Your task to perform on an android device: Search for razer blade on newegg, select the first entry, add it to the cart, then select checkout. Image 0: 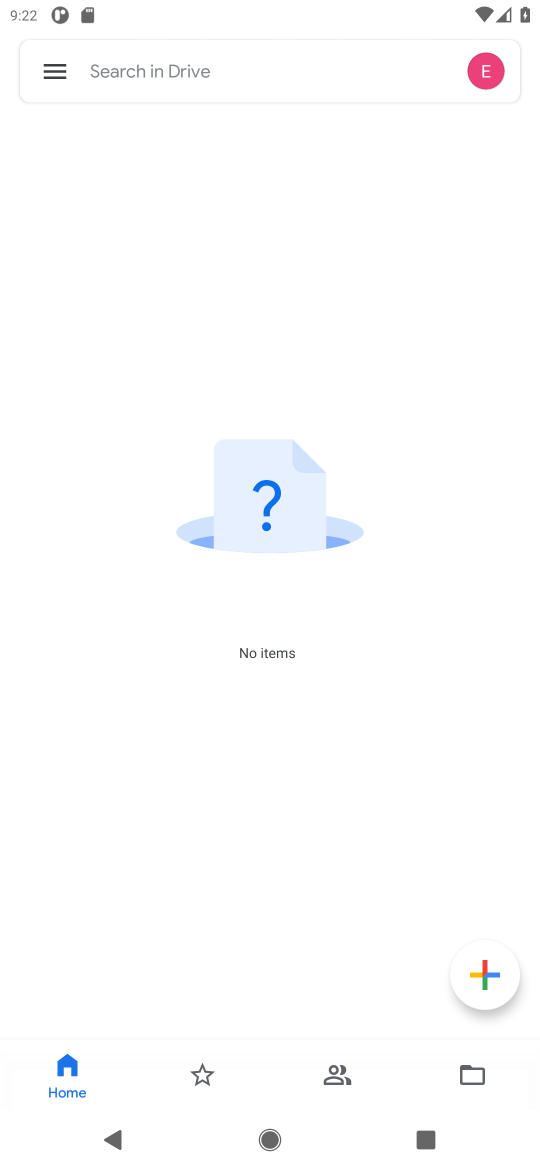
Step 0: press home button
Your task to perform on an android device: Search for razer blade on newegg, select the first entry, add it to the cart, then select checkout. Image 1: 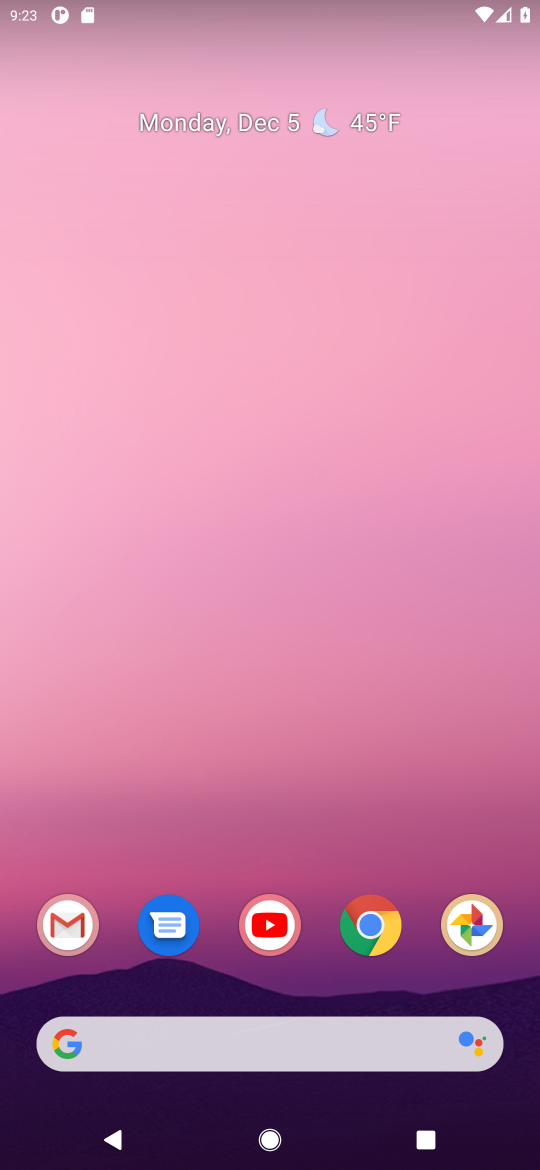
Step 1: click (373, 936)
Your task to perform on an android device: Search for razer blade on newegg, select the first entry, add it to the cart, then select checkout. Image 2: 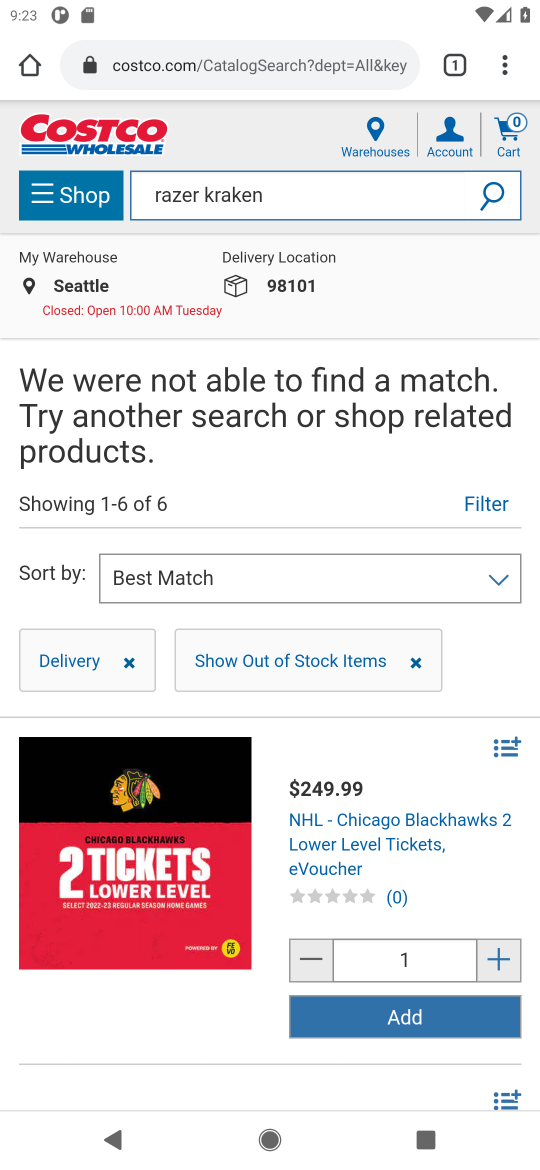
Step 2: click (211, 59)
Your task to perform on an android device: Search for razer blade on newegg, select the first entry, add it to the cart, then select checkout. Image 3: 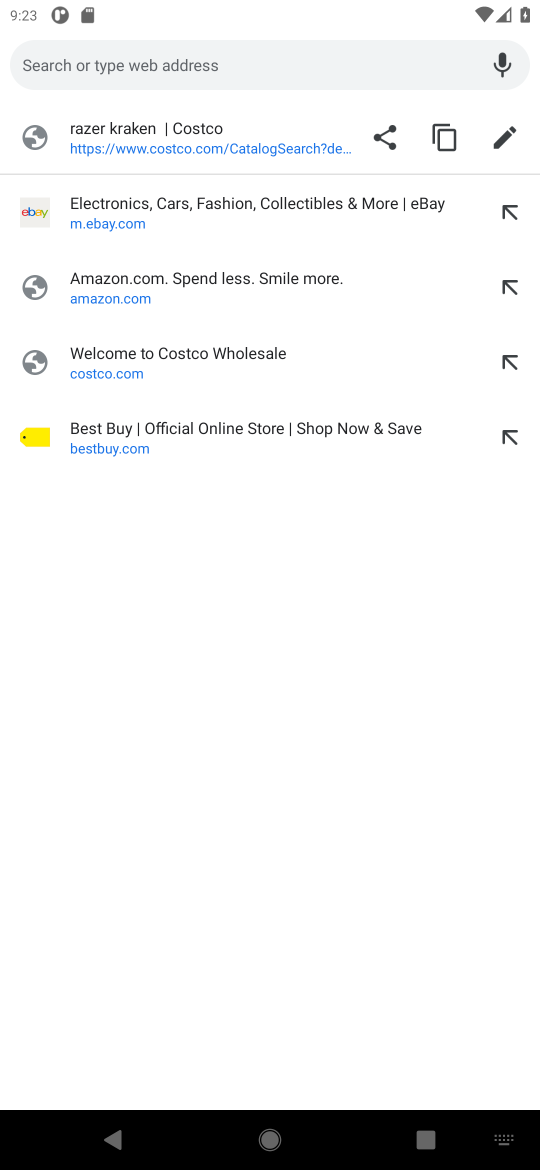
Step 3: type "newegg.com"
Your task to perform on an android device: Search for razer blade on newegg, select the first entry, add it to the cart, then select checkout. Image 4: 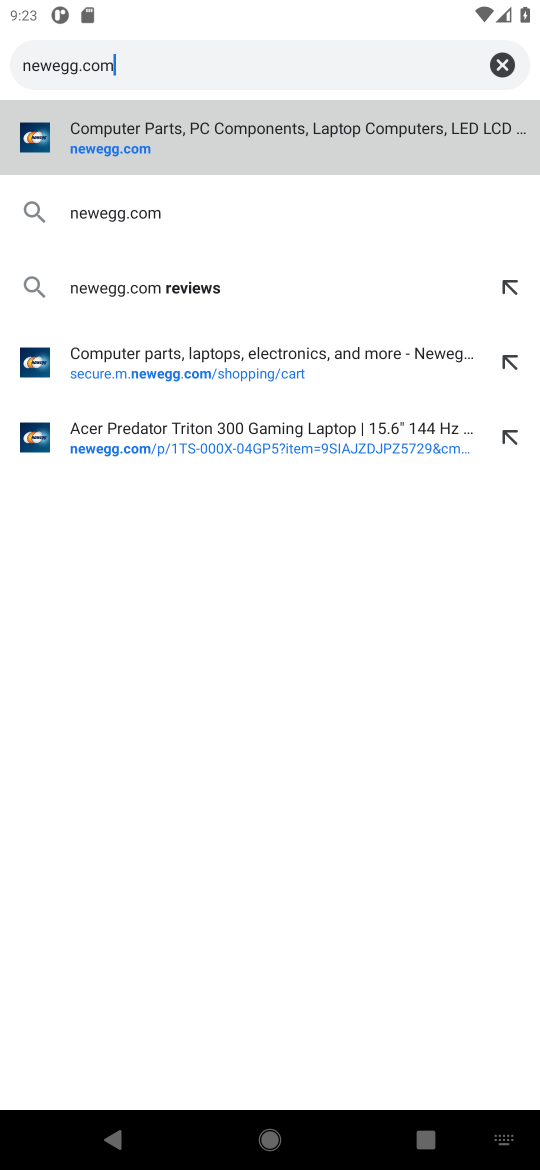
Step 4: click (78, 152)
Your task to perform on an android device: Search for razer blade on newegg, select the first entry, add it to the cart, then select checkout. Image 5: 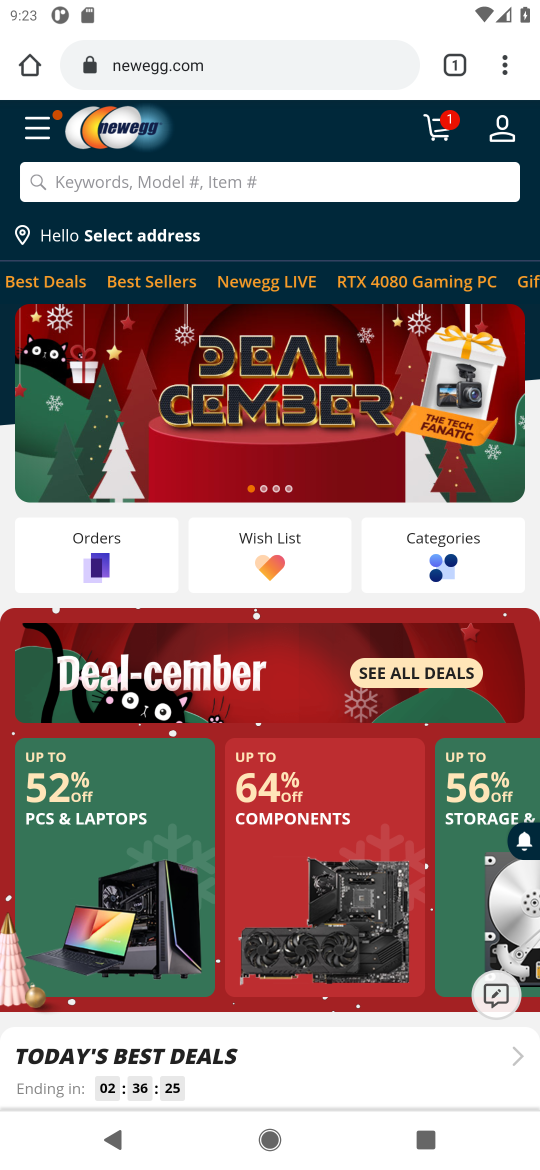
Step 5: click (143, 178)
Your task to perform on an android device: Search for razer blade on newegg, select the first entry, add it to the cart, then select checkout. Image 6: 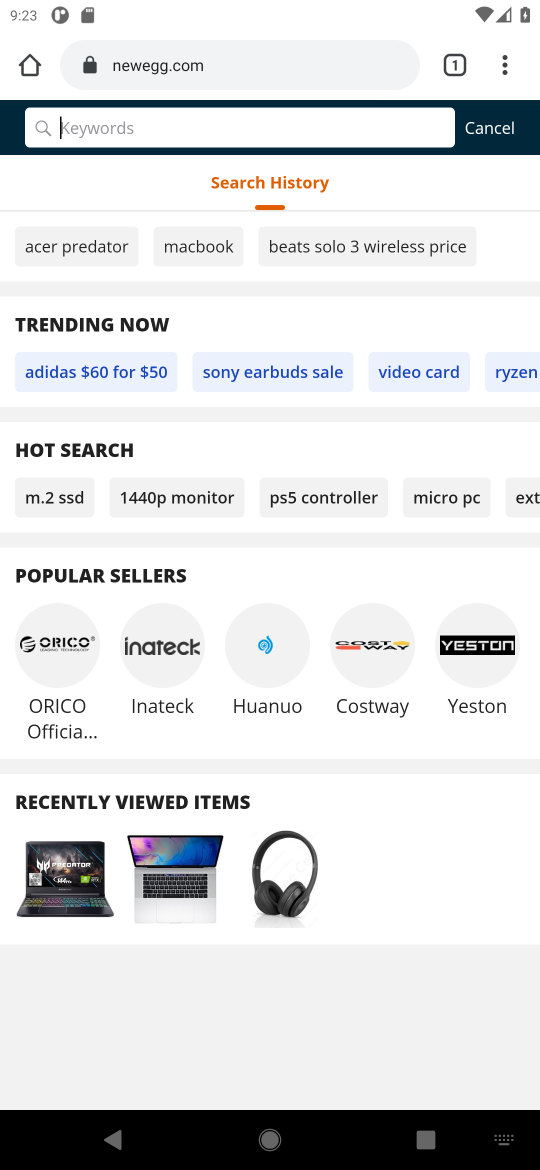
Step 6: type "razer blade"
Your task to perform on an android device: Search for razer blade on newegg, select the first entry, add it to the cart, then select checkout. Image 7: 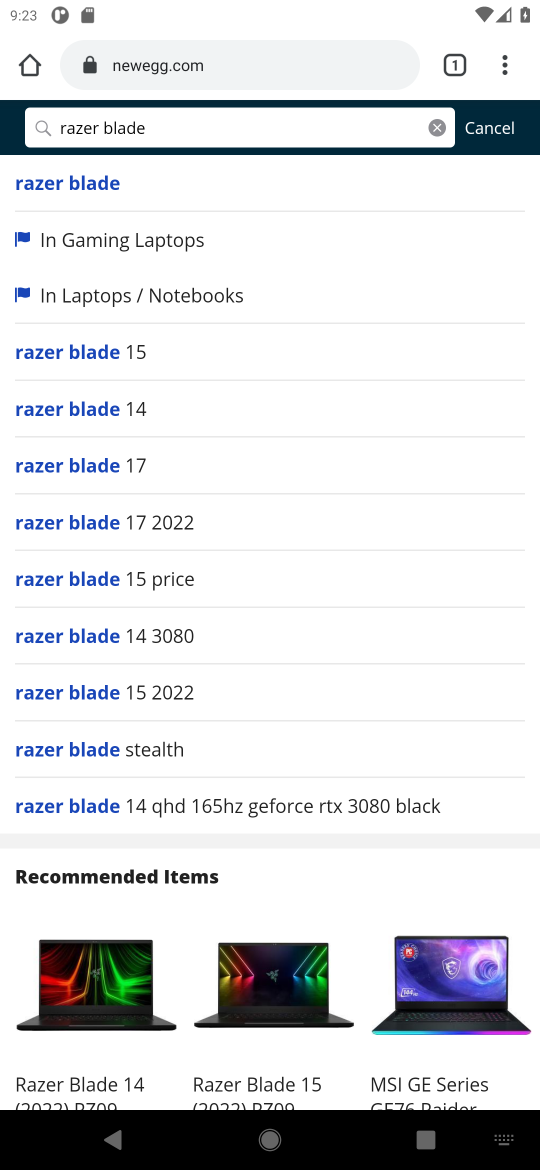
Step 7: click (49, 194)
Your task to perform on an android device: Search for razer blade on newegg, select the first entry, add it to the cart, then select checkout. Image 8: 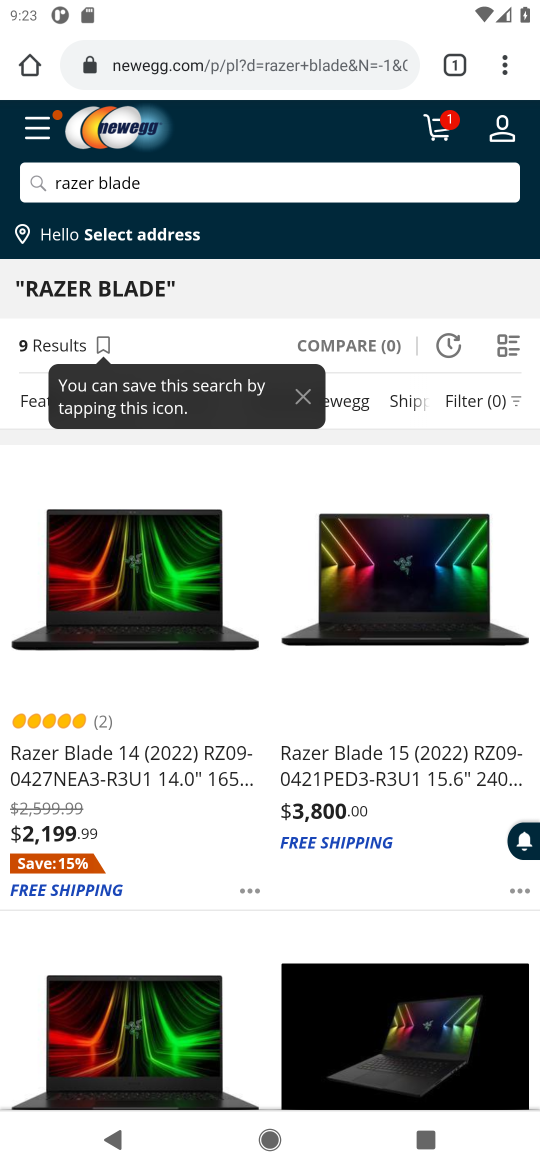
Step 8: click (77, 760)
Your task to perform on an android device: Search for razer blade on newegg, select the first entry, add it to the cart, then select checkout. Image 9: 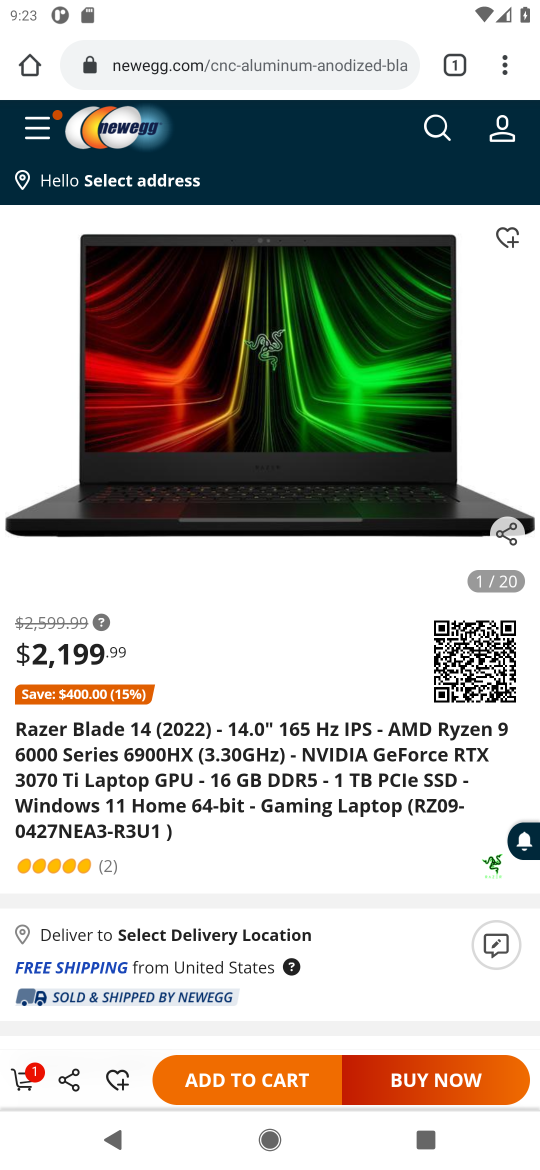
Step 9: click (261, 1086)
Your task to perform on an android device: Search for razer blade on newegg, select the first entry, add it to the cart, then select checkout. Image 10: 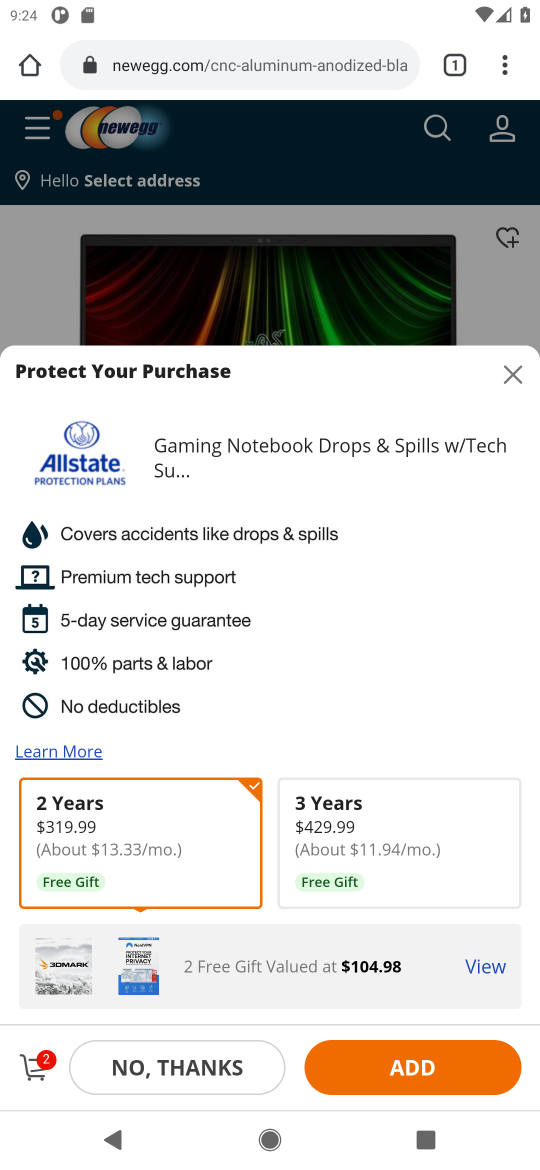
Step 10: click (35, 1071)
Your task to perform on an android device: Search for razer blade on newegg, select the first entry, add it to the cart, then select checkout. Image 11: 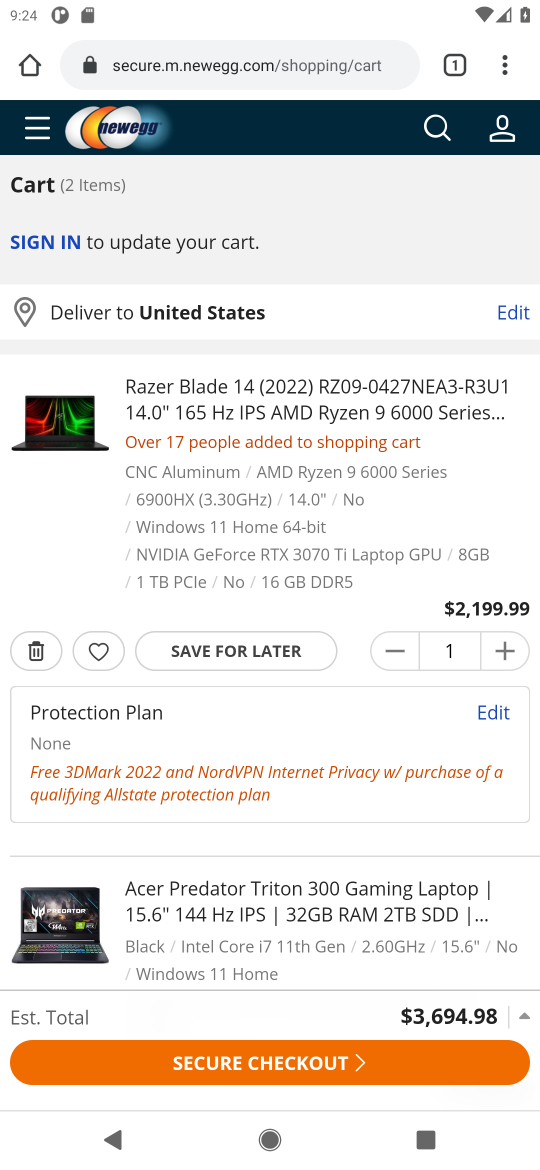
Step 11: click (227, 1060)
Your task to perform on an android device: Search for razer blade on newegg, select the first entry, add it to the cart, then select checkout. Image 12: 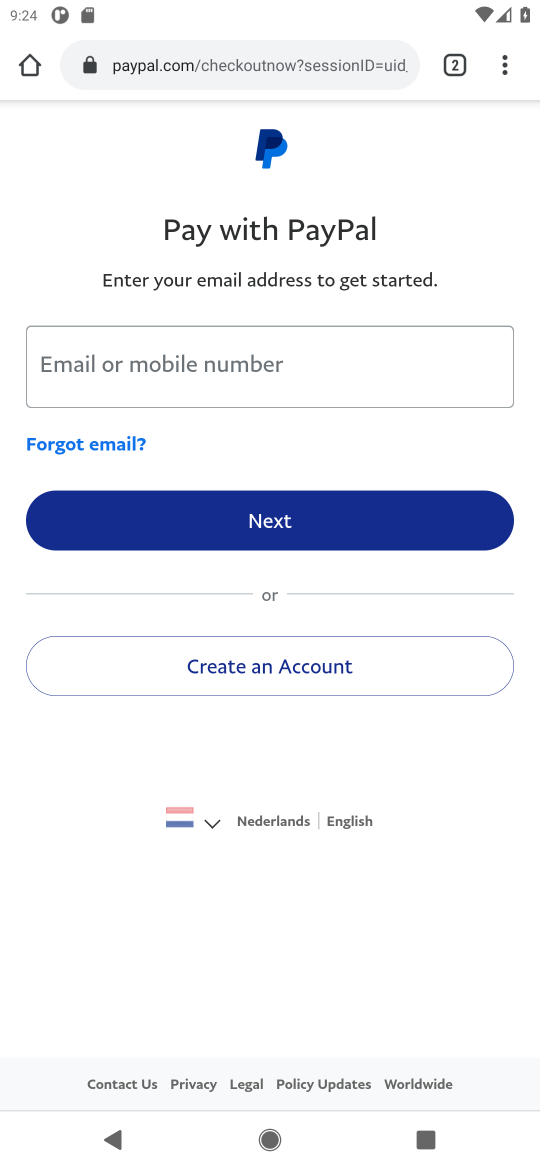
Step 12: task complete